Your task to perform on an android device: set the timer Image 0: 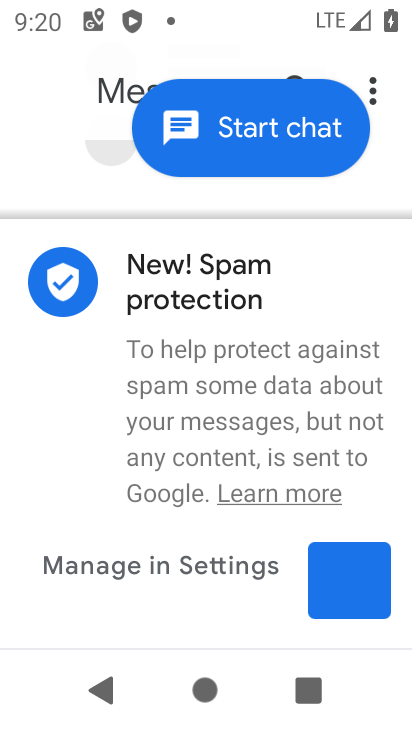
Step 0: press home button
Your task to perform on an android device: set the timer Image 1: 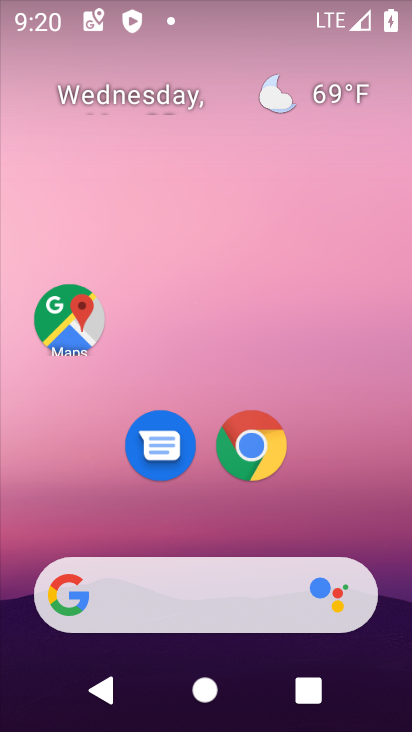
Step 1: drag from (328, 524) to (316, 101)
Your task to perform on an android device: set the timer Image 2: 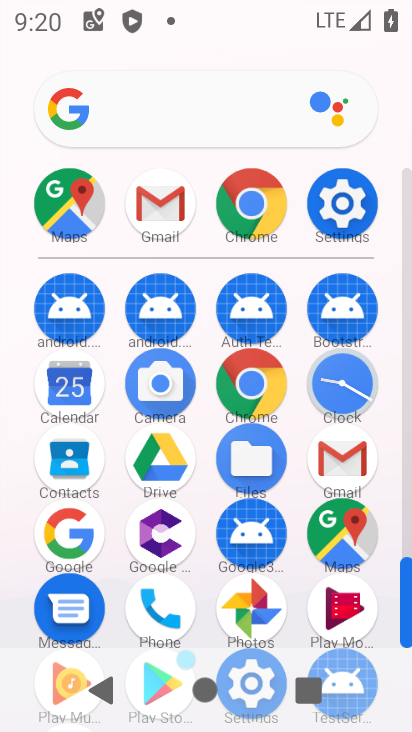
Step 2: click (338, 392)
Your task to perform on an android device: set the timer Image 3: 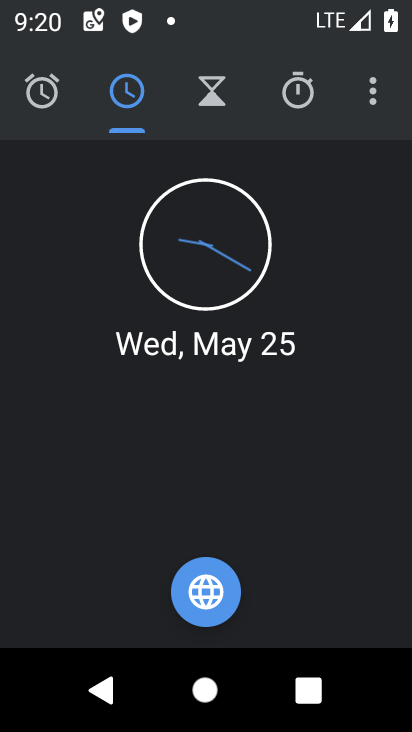
Step 3: click (214, 101)
Your task to perform on an android device: set the timer Image 4: 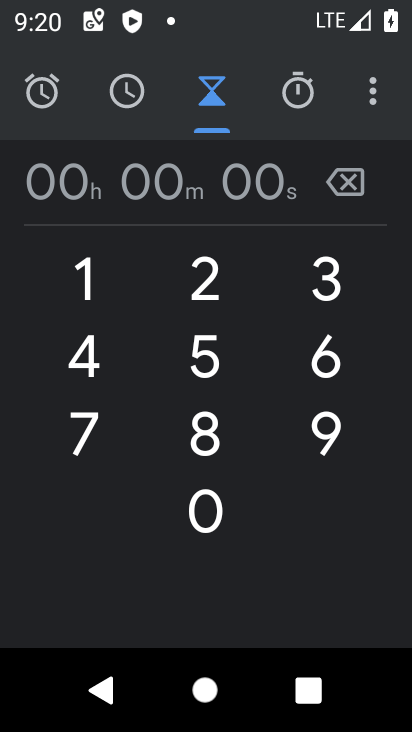
Step 4: click (207, 289)
Your task to perform on an android device: set the timer Image 5: 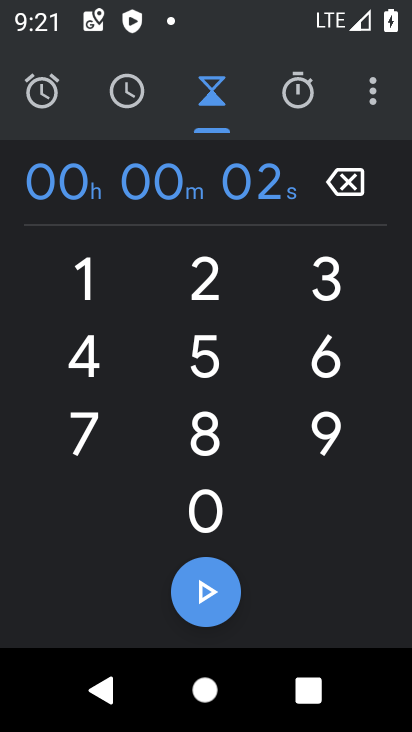
Step 5: click (334, 421)
Your task to perform on an android device: set the timer Image 6: 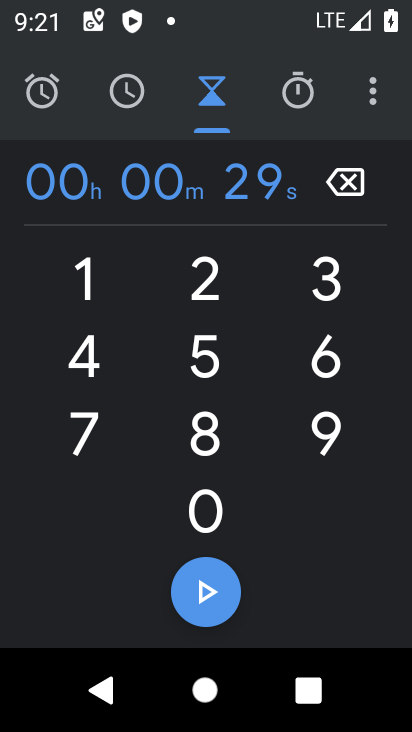
Step 6: click (185, 598)
Your task to perform on an android device: set the timer Image 7: 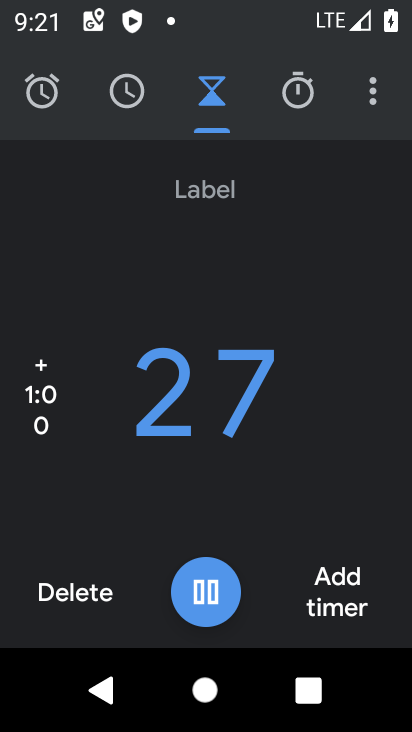
Step 7: task complete